Your task to perform on an android device: Go to notification settings Image 0: 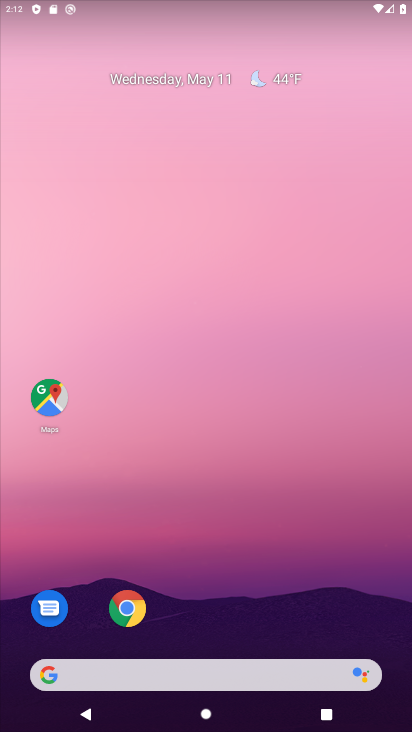
Step 0: drag from (214, 665) to (293, 208)
Your task to perform on an android device: Go to notification settings Image 1: 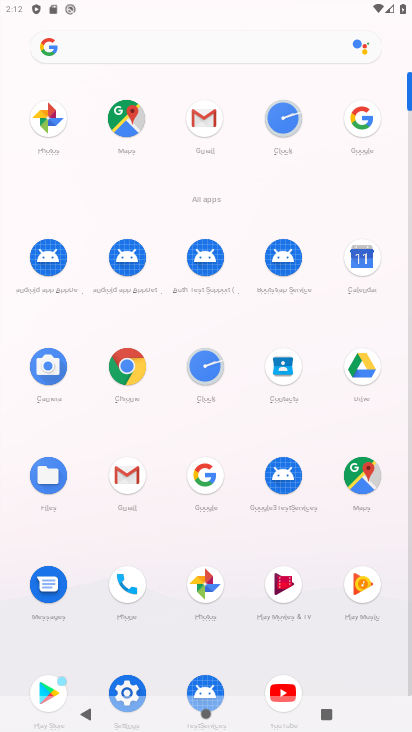
Step 1: click (120, 687)
Your task to perform on an android device: Go to notification settings Image 2: 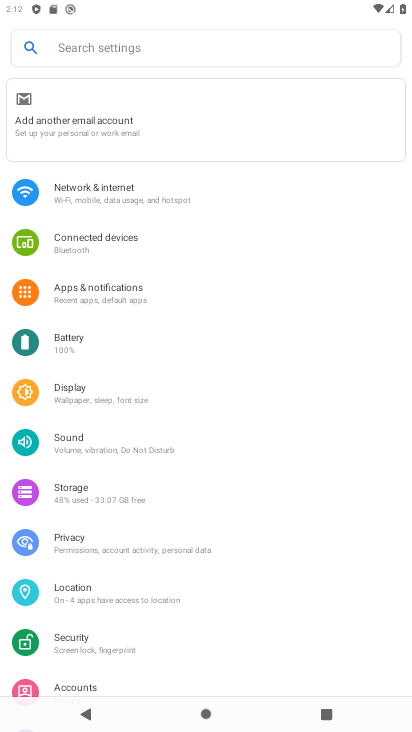
Step 2: click (174, 300)
Your task to perform on an android device: Go to notification settings Image 3: 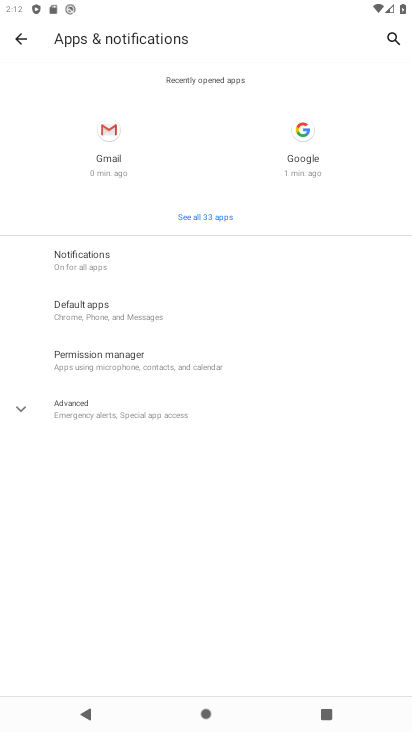
Step 3: click (153, 268)
Your task to perform on an android device: Go to notification settings Image 4: 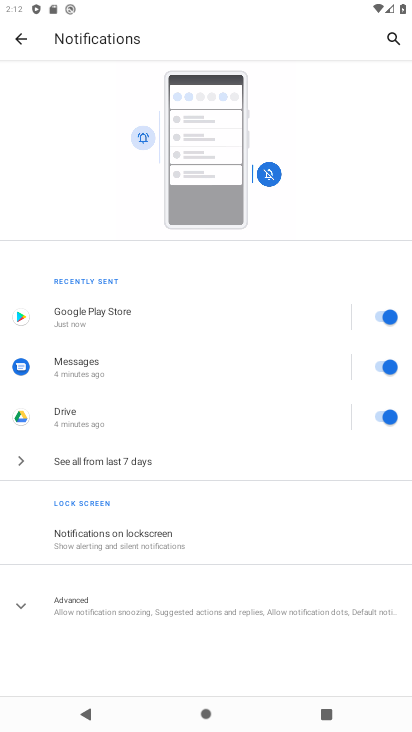
Step 4: task complete